Your task to perform on an android device: Go to Wikipedia Image 0: 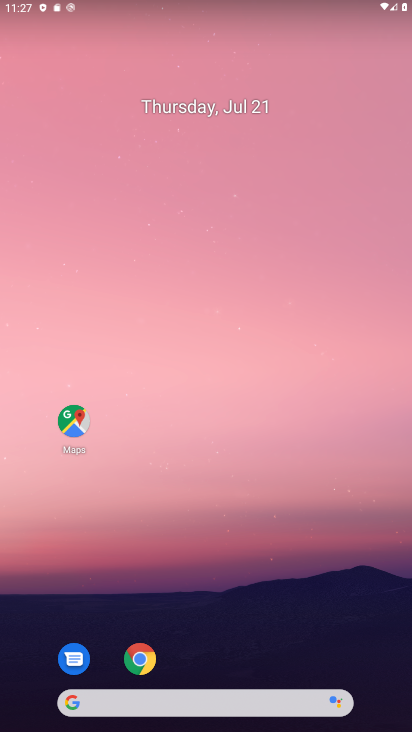
Step 0: drag from (265, 661) to (252, 93)
Your task to perform on an android device: Go to Wikipedia Image 1: 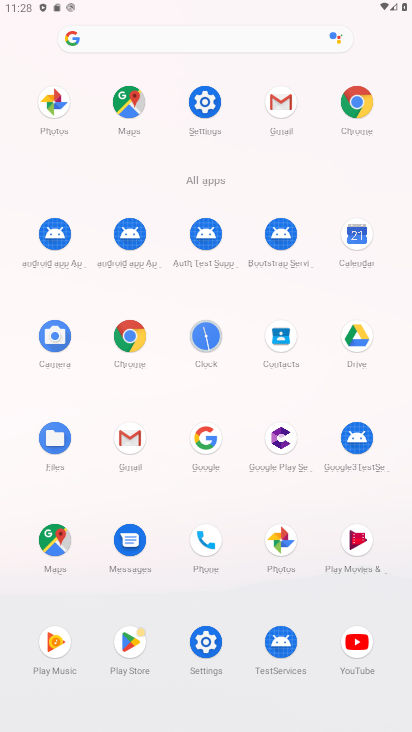
Step 1: click (199, 113)
Your task to perform on an android device: Go to Wikipedia Image 2: 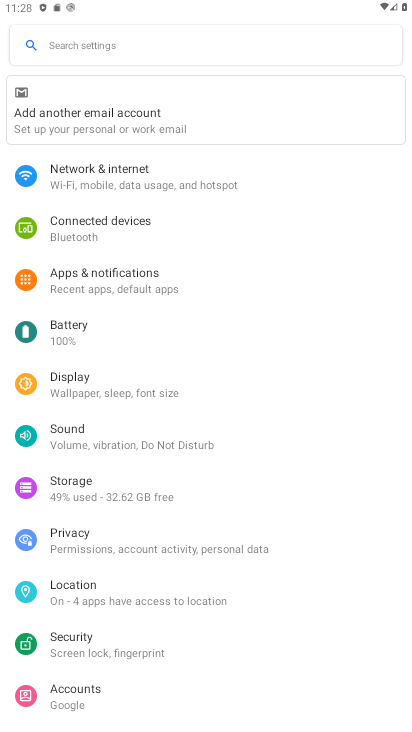
Step 2: task complete